Your task to perform on an android device: move a message to another label in the gmail app Image 0: 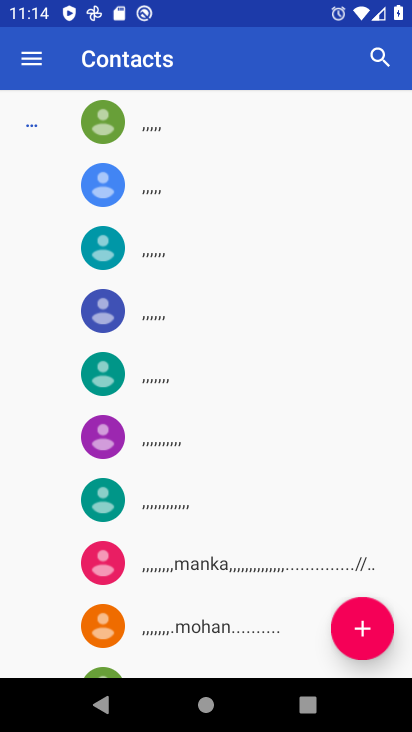
Step 0: press back button
Your task to perform on an android device: move a message to another label in the gmail app Image 1: 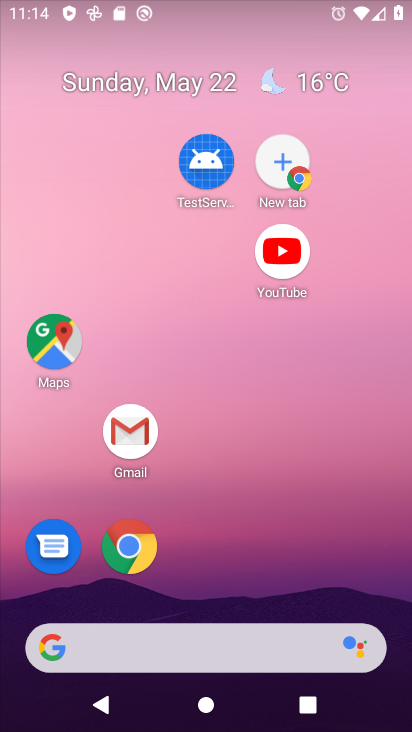
Step 1: drag from (351, 690) to (265, 20)
Your task to perform on an android device: move a message to another label in the gmail app Image 2: 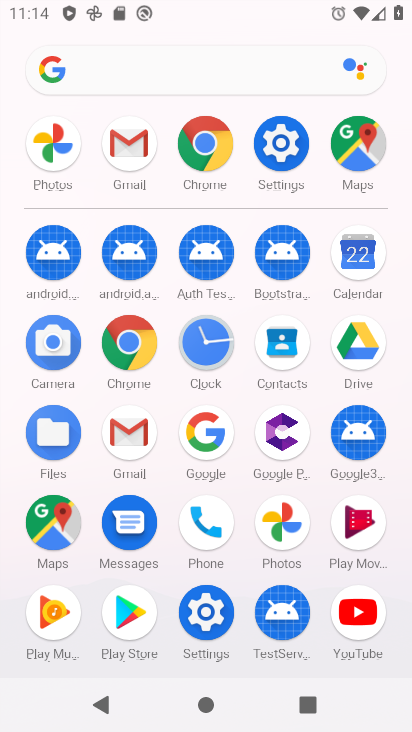
Step 2: click (131, 430)
Your task to perform on an android device: move a message to another label in the gmail app Image 3: 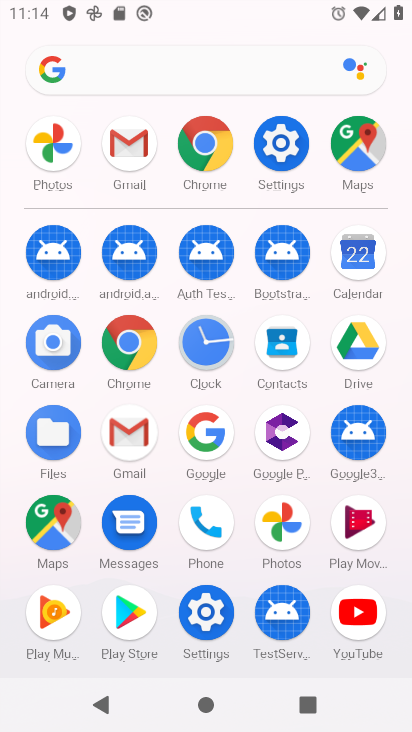
Step 3: click (131, 430)
Your task to perform on an android device: move a message to another label in the gmail app Image 4: 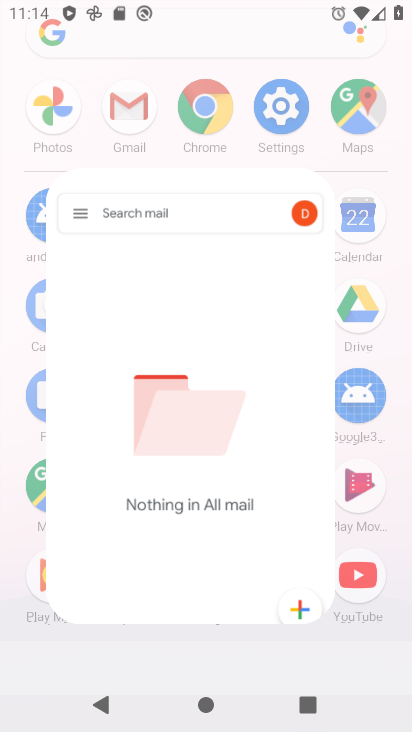
Step 4: click (131, 430)
Your task to perform on an android device: move a message to another label in the gmail app Image 5: 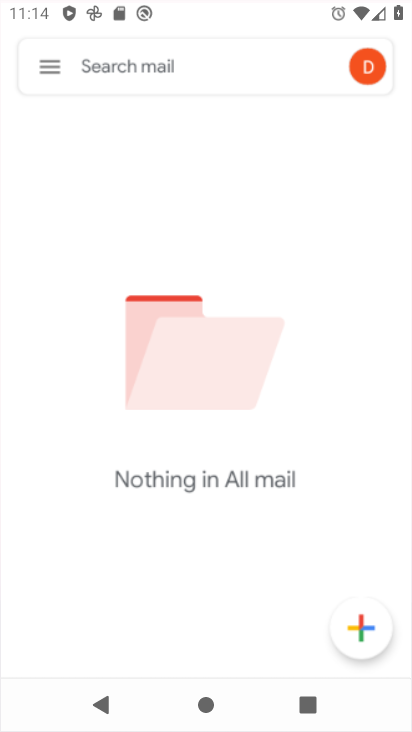
Step 5: click (132, 431)
Your task to perform on an android device: move a message to another label in the gmail app Image 6: 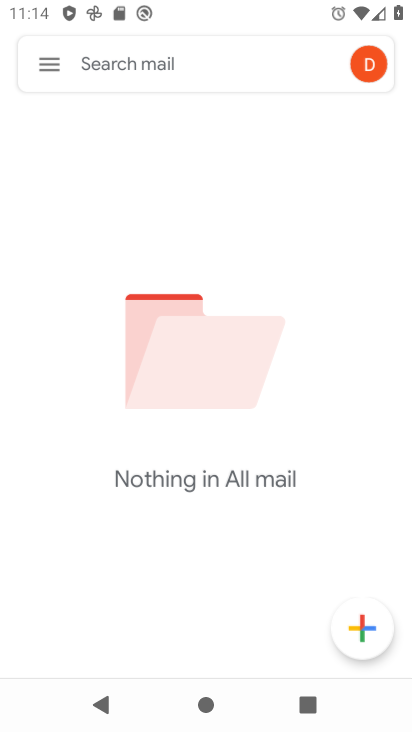
Step 6: click (132, 431)
Your task to perform on an android device: move a message to another label in the gmail app Image 7: 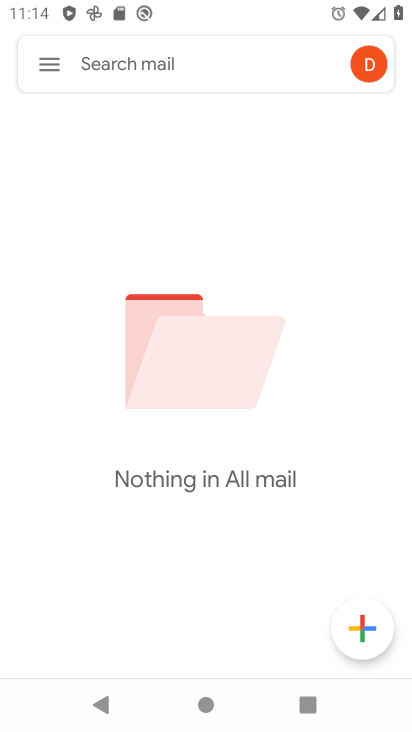
Step 7: click (59, 60)
Your task to perform on an android device: move a message to another label in the gmail app Image 8: 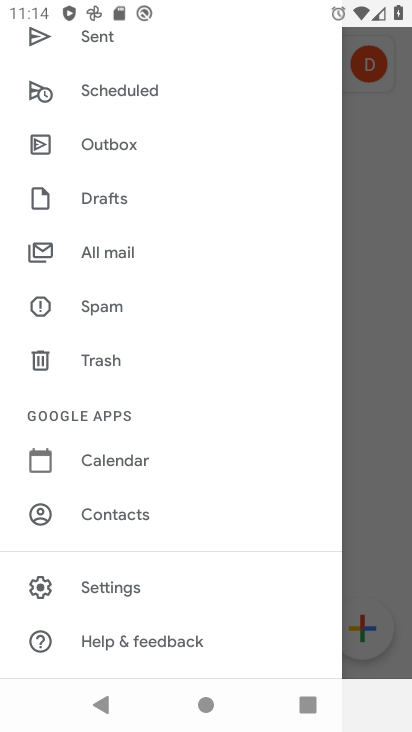
Step 8: click (92, 247)
Your task to perform on an android device: move a message to another label in the gmail app Image 9: 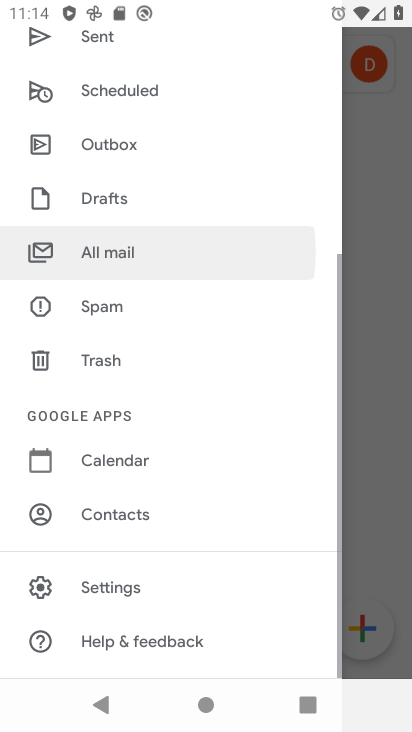
Step 9: click (92, 247)
Your task to perform on an android device: move a message to another label in the gmail app Image 10: 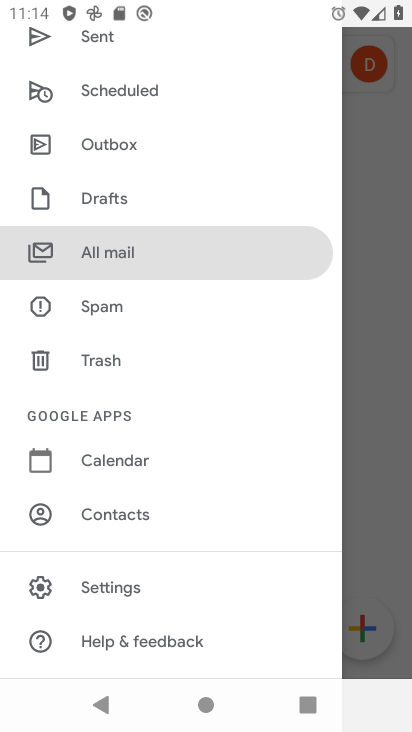
Step 10: click (115, 251)
Your task to perform on an android device: move a message to another label in the gmail app Image 11: 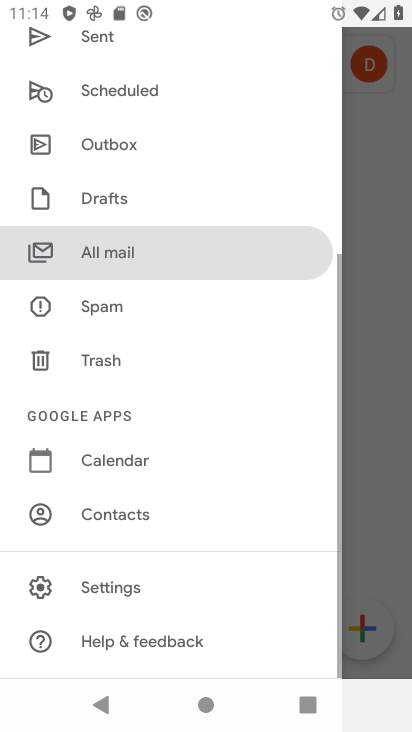
Step 11: click (115, 251)
Your task to perform on an android device: move a message to another label in the gmail app Image 12: 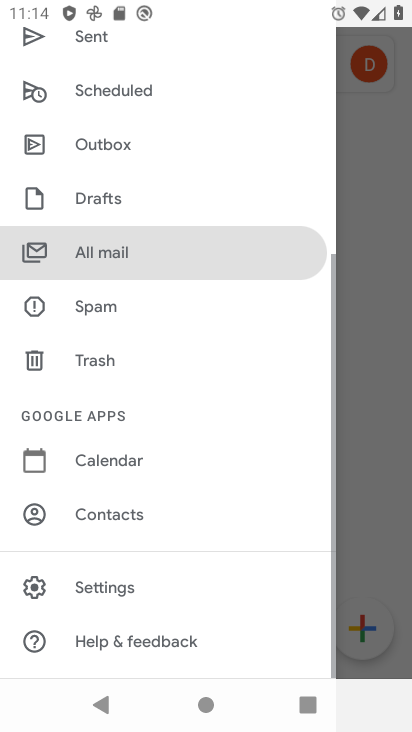
Step 12: click (115, 251)
Your task to perform on an android device: move a message to another label in the gmail app Image 13: 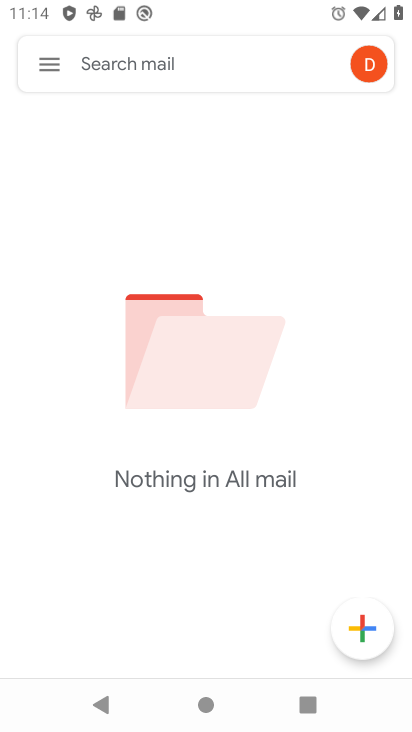
Step 13: task complete